Your task to perform on an android device: Toggle the flashlight Image 0: 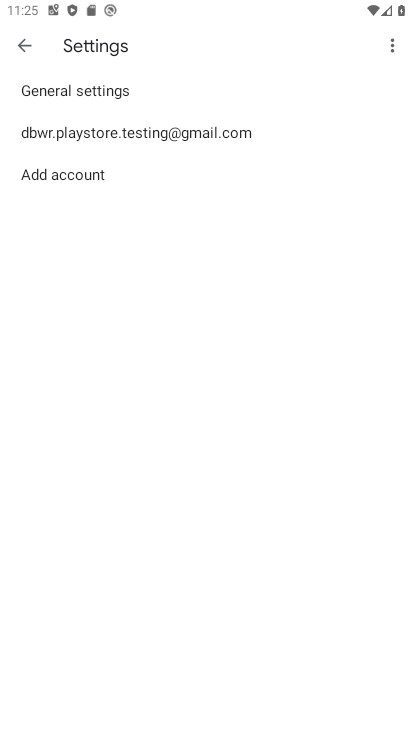
Step 0: press back button
Your task to perform on an android device: Toggle the flashlight Image 1: 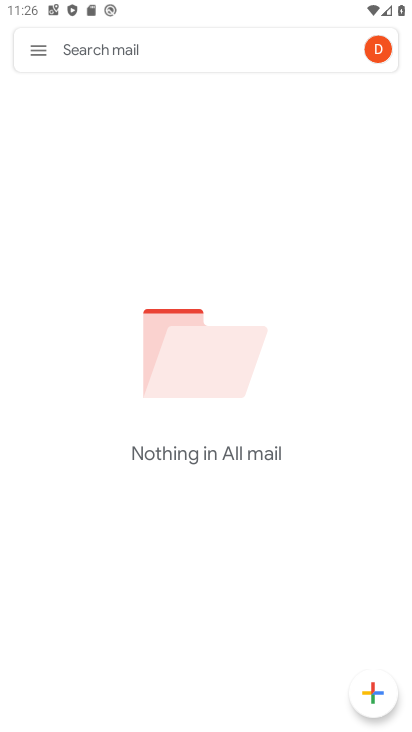
Step 1: press back button
Your task to perform on an android device: Toggle the flashlight Image 2: 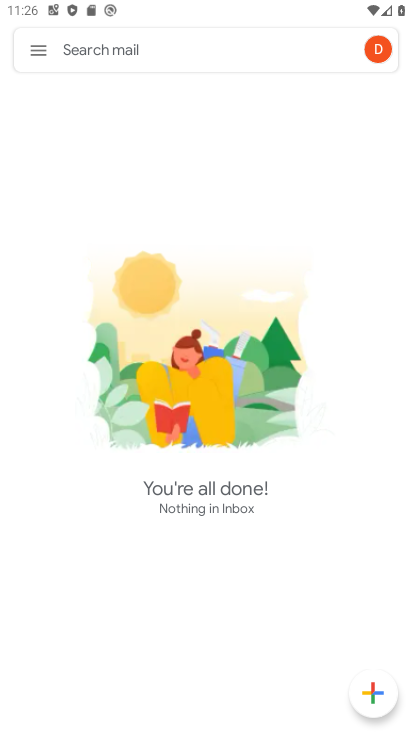
Step 2: press back button
Your task to perform on an android device: Toggle the flashlight Image 3: 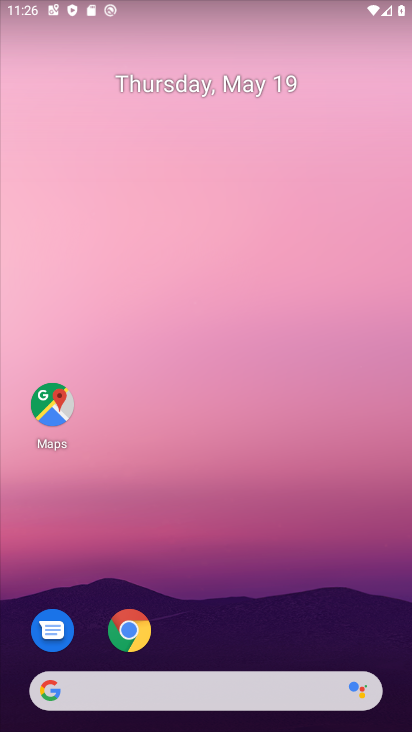
Step 3: drag from (271, 566) to (251, 168)
Your task to perform on an android device: Toggle the flashlight Image 4: 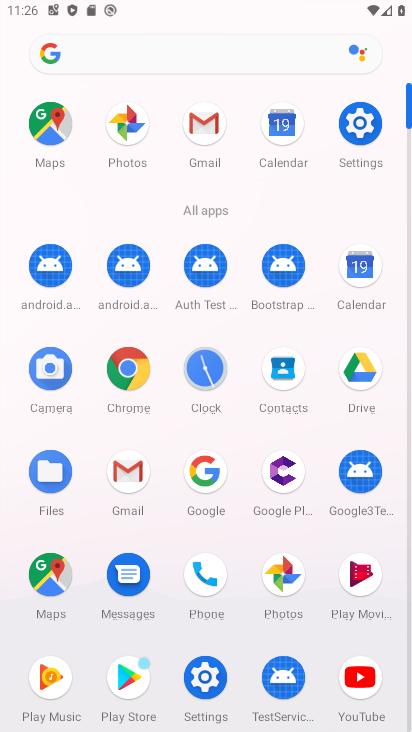
Step 4: click (209, 679)
Your task to perform on an android device: Toggle the flashlight Image 5: 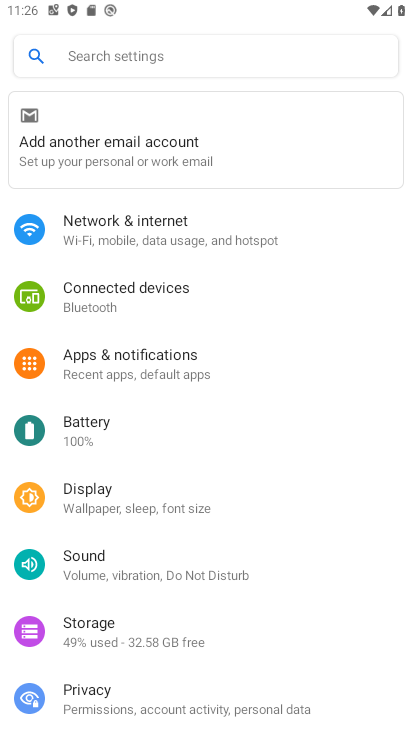
Step 5: click (168, 501)
Your task to perform on an android device: Toggle the flashlight Image 6: 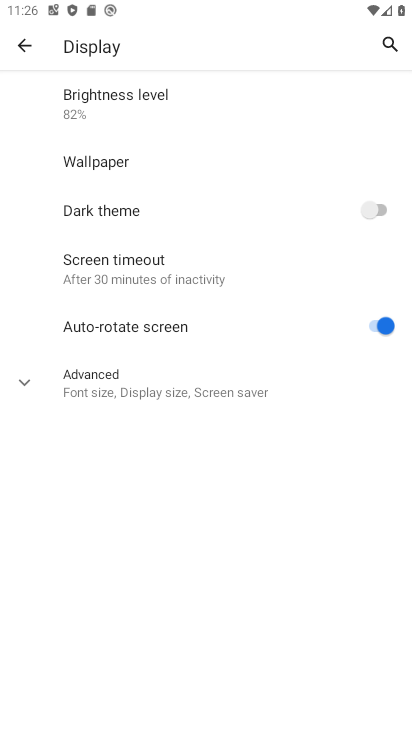
Step 6: click (132, 383)
Your task to perform on an android device: Toggle the flashlight Image 7: 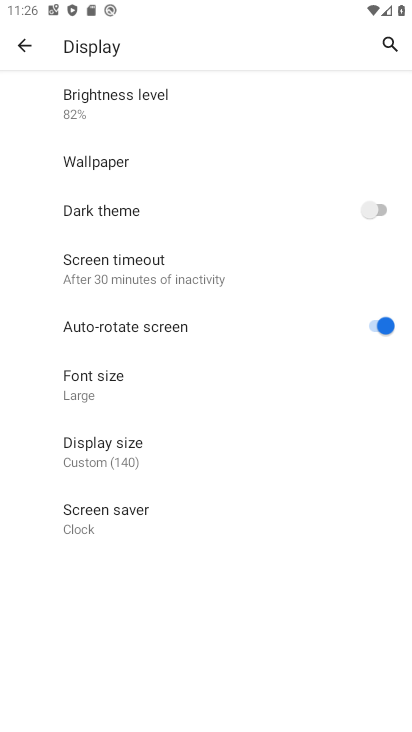
Step 7: task complete